Your task to perform on an android device: check google app version Image 0: 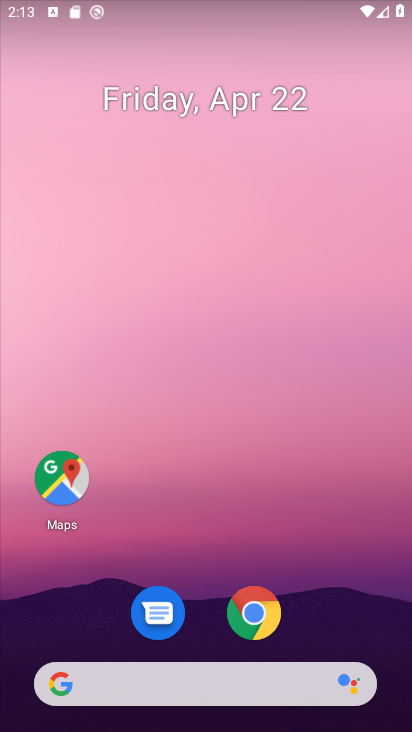
Step 0: drag from (303, 304) to (359, 80)
Your task to perform on an android device: check google app version Image 1: 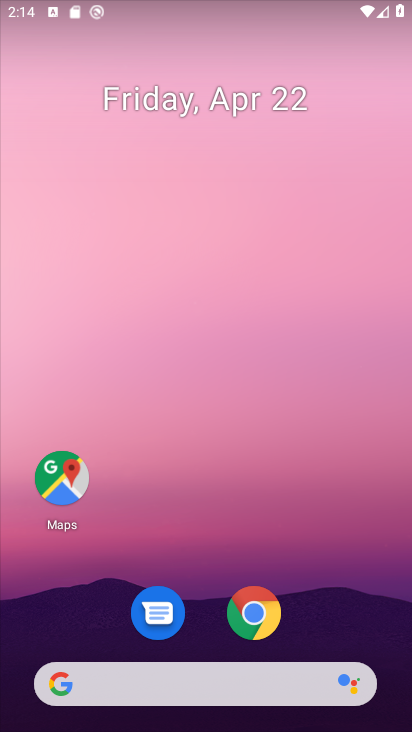
Step 1: drag from (80, 686) to (290, 25)
Your task to perform on an android device: check google app version Image 2: 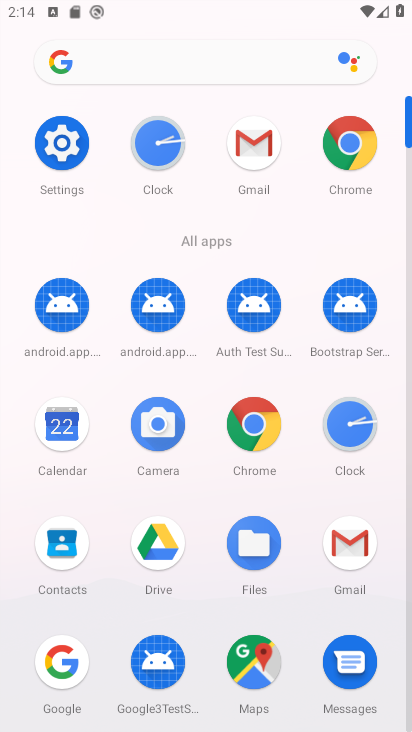
Step 2: click (71, 660)
Your task to perform on an android device: check google app version Image 3: 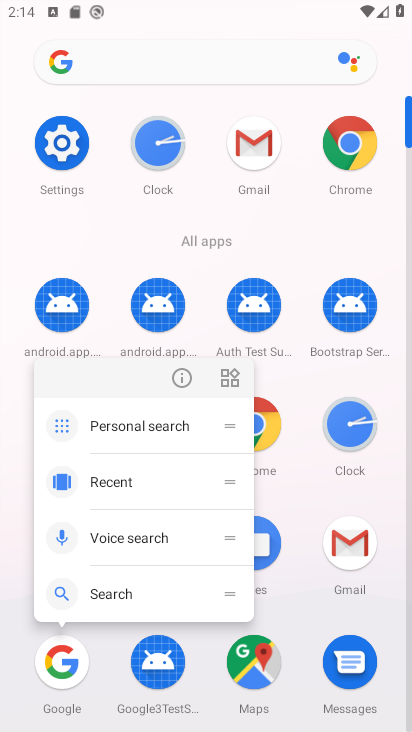
Step 3: click (182, 370)
Your task to perform on an android device: check google app version Image 4: 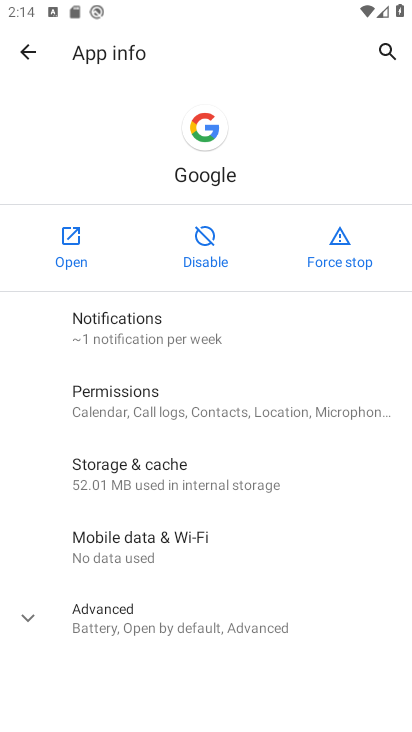
Step 4: drag from (310, 641) to (358, 101)
Your task to perform on an android device: check google app version Image 5: 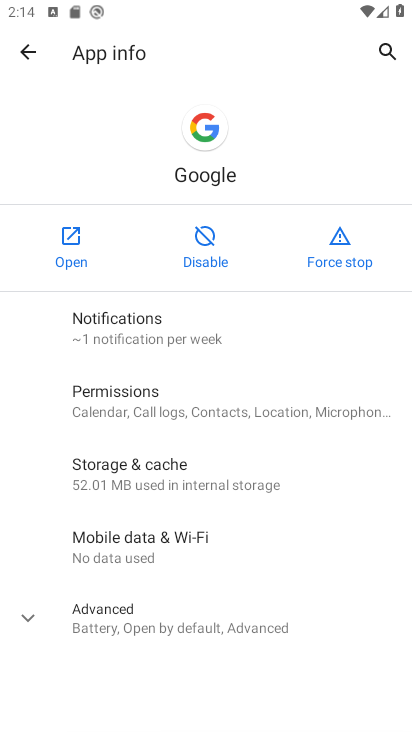
Step 5: click (169, 601)
Your task to perform on an android device: check google app version Image 6: 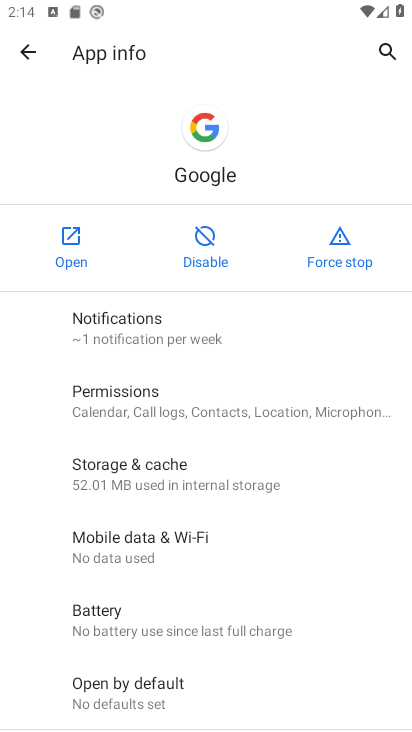
Step 6: task complete